Your task to perform on an android device: Go to privacy settings Image 0: 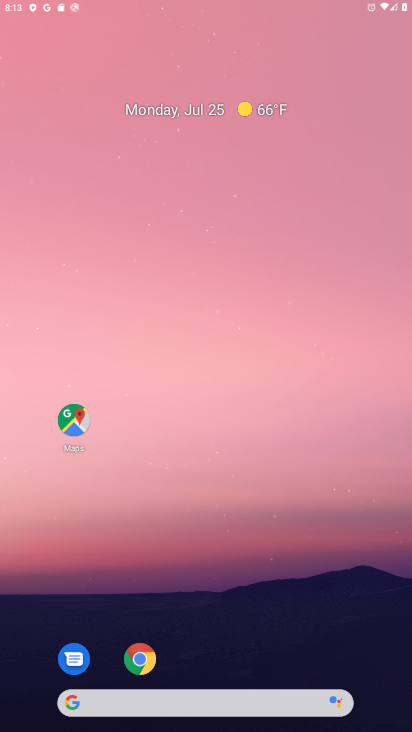
Step 0: press home button
Your task to perform on an android device: Go to privacy settings Image 1: 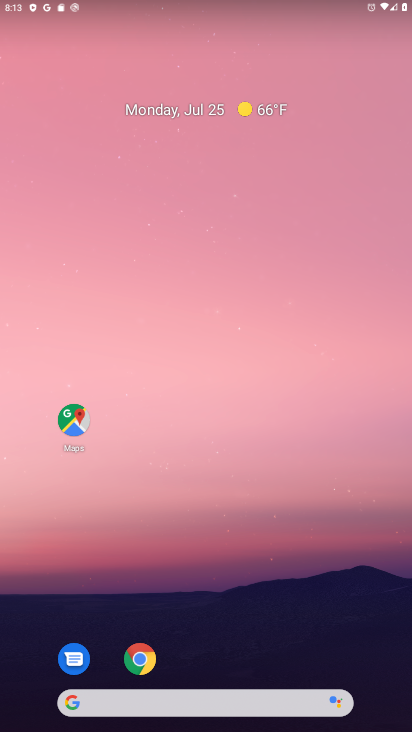
Step 1: drag from (236, 684) to (196, 373)
Your task to perform on an android device: Go to privacy settings Image 2: 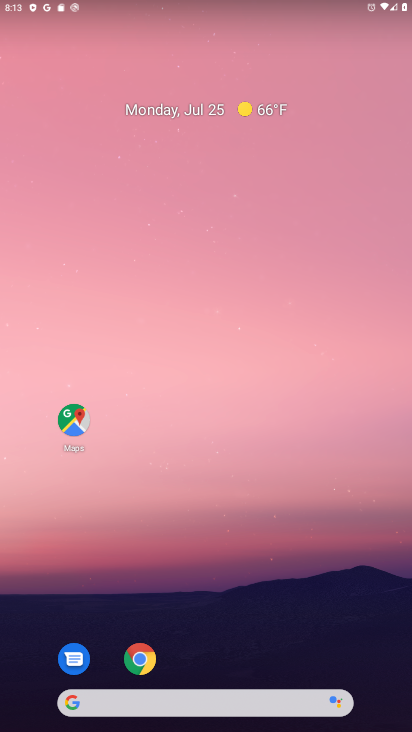
Step 2: drag from (202, 669) to (219, 419)
Your task to perform on an android device: Go to privacy settings Image 3: 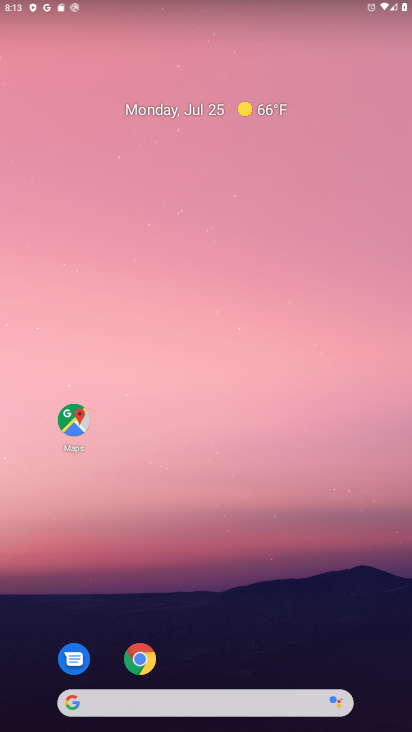
Step 3: drag from (206, 697) to (256, 12)
Your task to perform on an android device: Go to privacy settings Image 4: 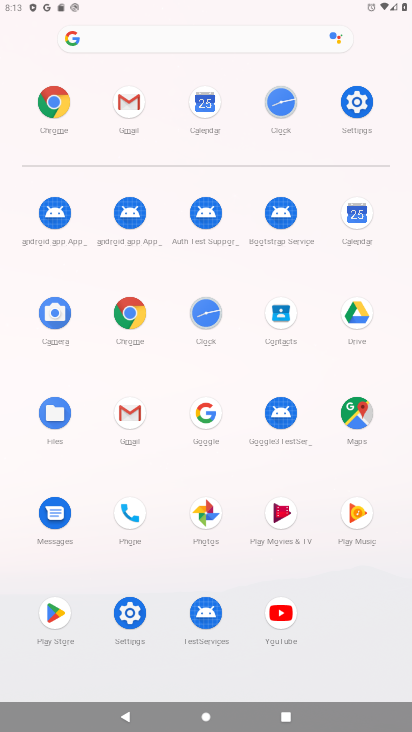
Step 4: click (344, 140)
Your task to perform on an android device: Go to privacy settings Image 5: 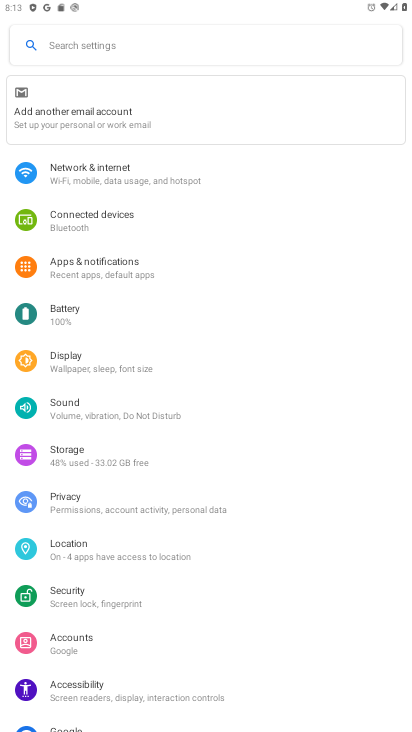
Step 5: click (70, 499)
Your task to perform on an android device: Go to privacy settings Image 6: 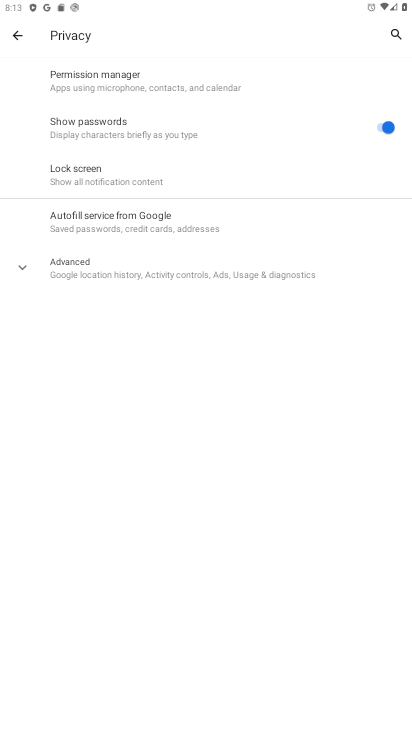
Step 6: task complete